Your task to perform on an android device: turn on airplane mode Image 0: 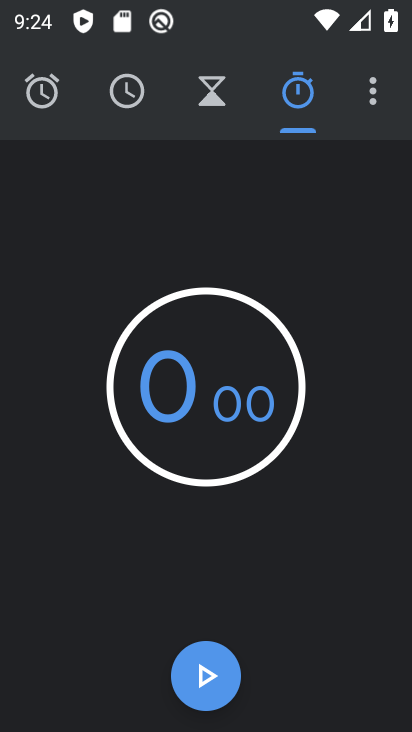
Step 0: press home button
Your task to perform on an android device: turn on airplane mode Image 1: 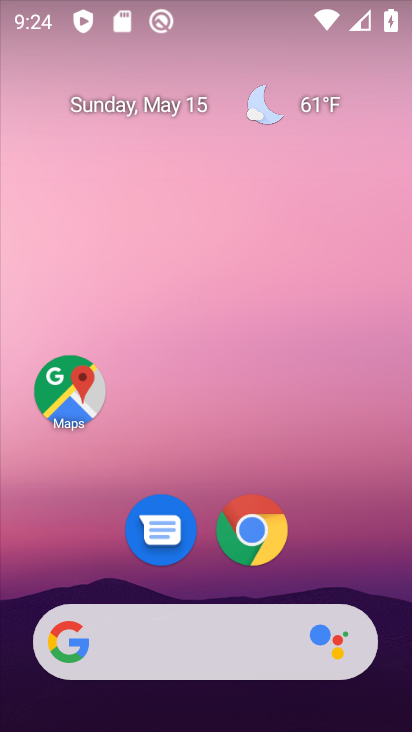
Step 1: drag from (222, 725) to (216, 138)
Your task to perform on an android device: turn on airplane mode Image 2: 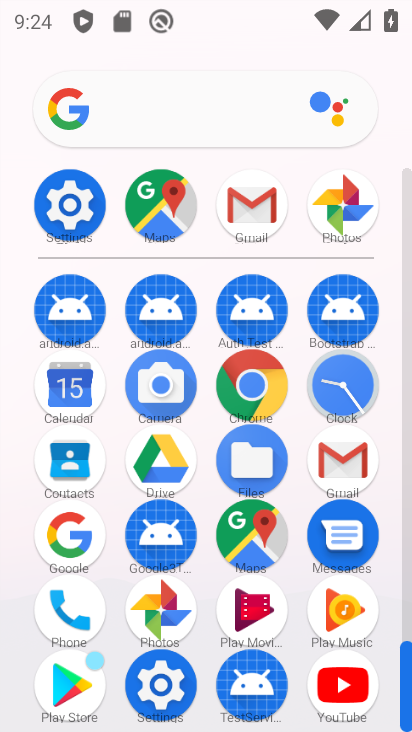
Step 2: click (64, 216)
Your task to perform on an android device: turn on airplane mode Image 3: 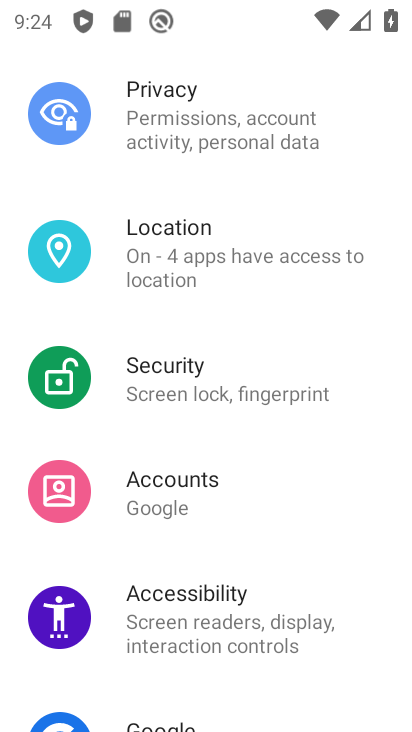
Step 3: drag from (175, 130) to (179, 520)
Your task to perform on an android device: turn on airplane mode Image 4: 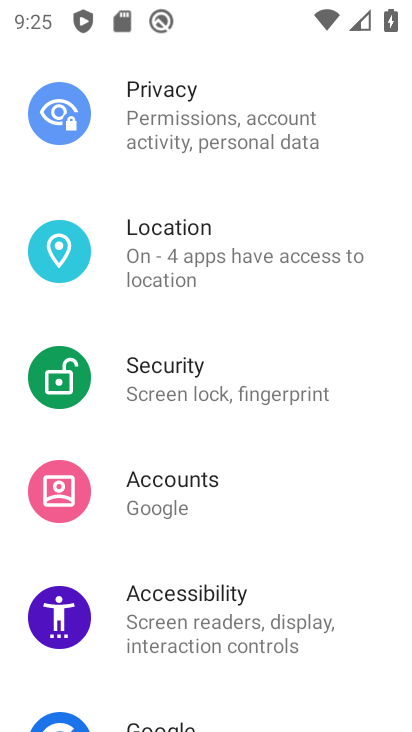
Step 4: drag from (203, 375) to (187, 493)
Your task to perform on an android device: turn on airplane mode Image 5: 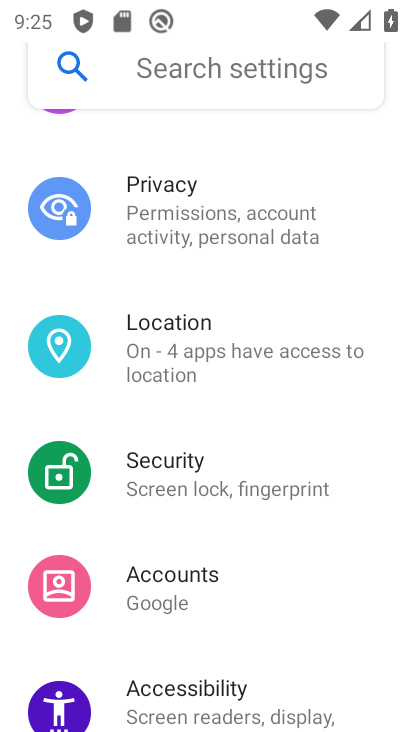
Step 5: drag from (220, 132) to (229, 494)
Your task to perform on an android device: turn on airplane mode Image 6: 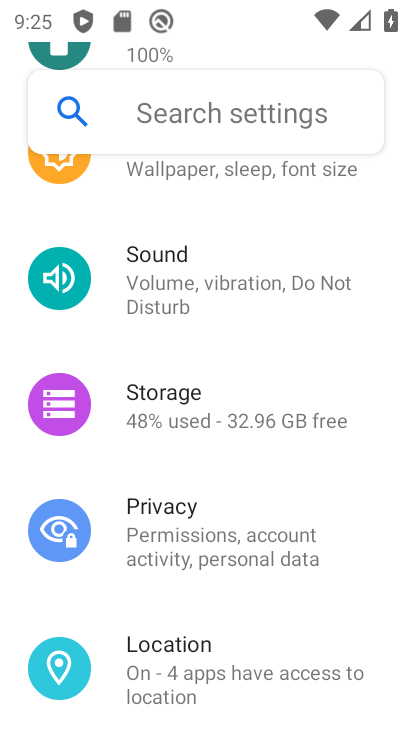
Step 6: drag from (229, 140) to (230, 417)
Your task to perform on an android device: turn on airplane mode Image 7: 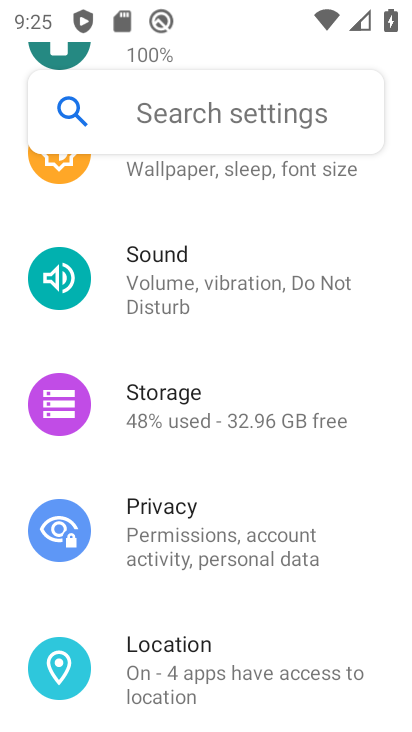
Step 7: drag from (225, 204) to (223, 513)
Your task to perform on an android device: turn on airplane mode Image 8: 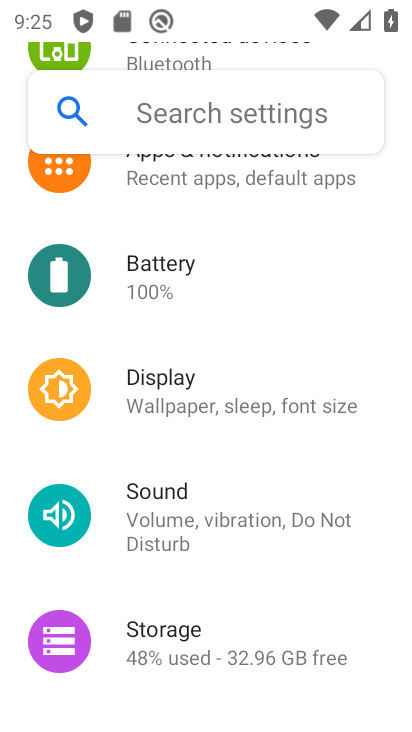
Step 8: drag from (232, 208) to (223, 597)
Your task to perform on an android device: turn on airplane mode Image 9: 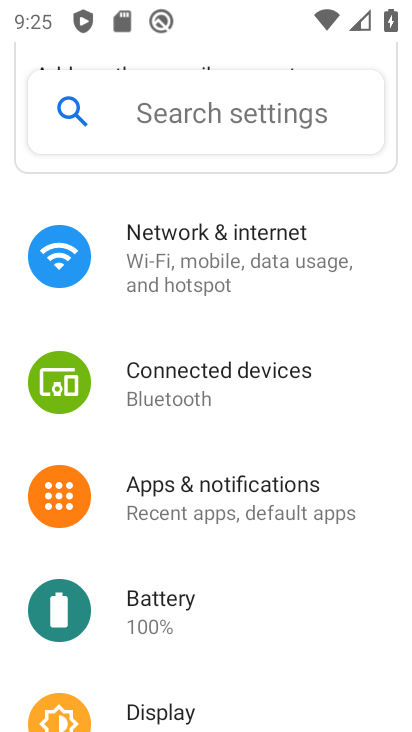
Step 9: click (238, 243)
Your task to perform on an android device: turn on airplane mode Image 10: 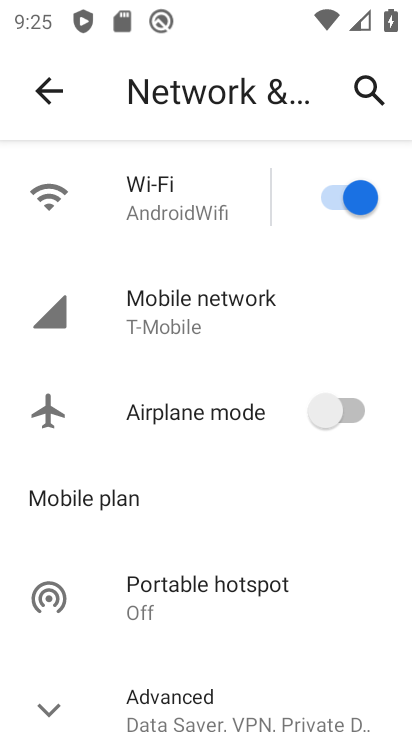
Step 10: click (350, 406)
Your task to perform on an android device: turn on airplane mode Image 11: 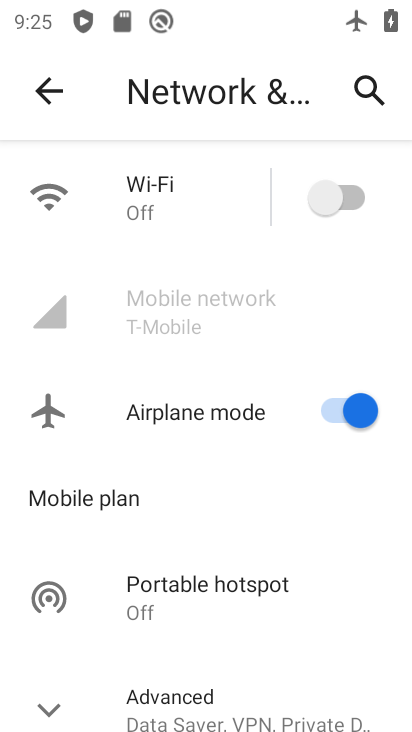
Step 11: task complete